Your task to perform on an android device: Open privacy settings Image 0: 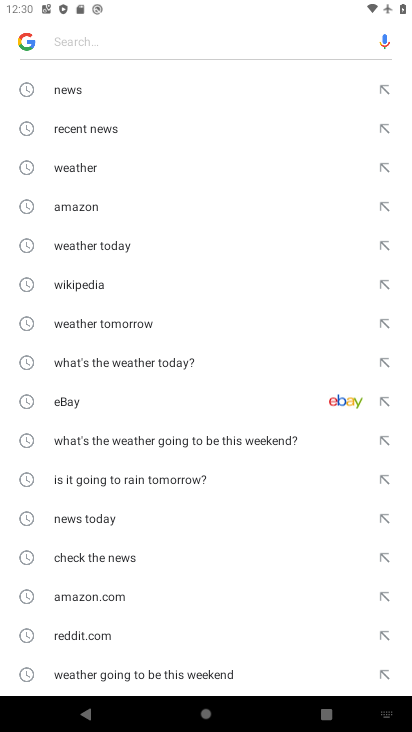
Step 0: press home button
Your task to perform on an android device: Open privacy settings Image 1: 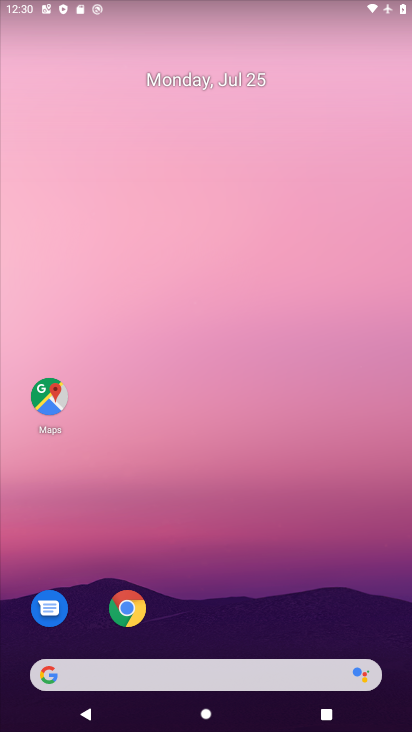
Step 1: drag from (190, 609) to (290, 29)
Your task to perform on an android device: Open privacy settings Image 2: 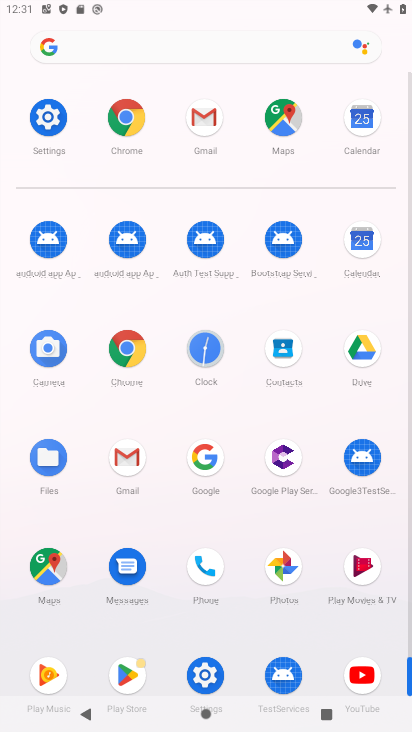
Step 2: click (51, 135)
Your task to perform on an android device: Open privacy settings Image 3: 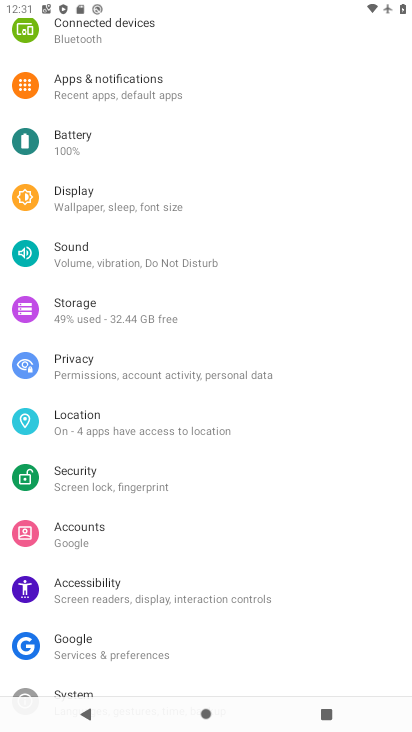
Step 3: drag from (170, 476) to (175, 388)
Your task to perform on an android device: Open privacy settings Image 4: 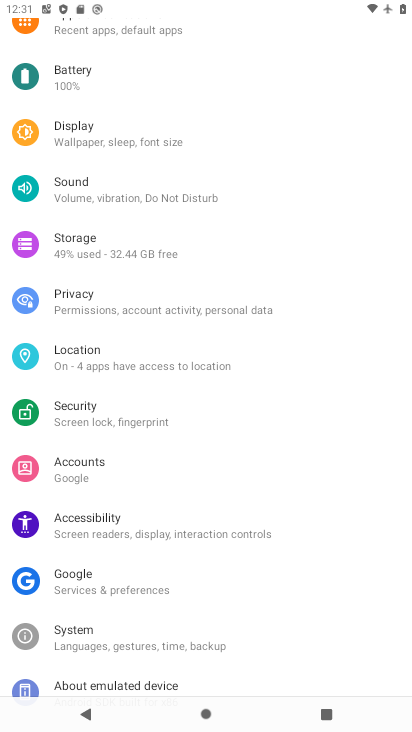
Step 4: click (135, 302)
Your task to perform on an android device: Open privacy settings Image 5: 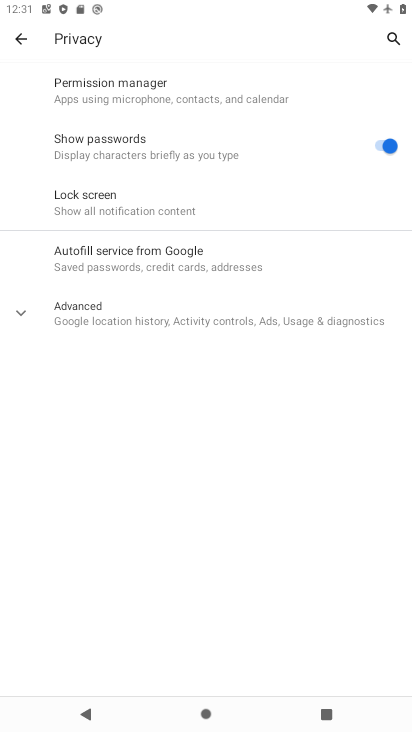
Step 5: task complete